Your task to perform on an android device: turn off data saver in the chrome app Image 0: 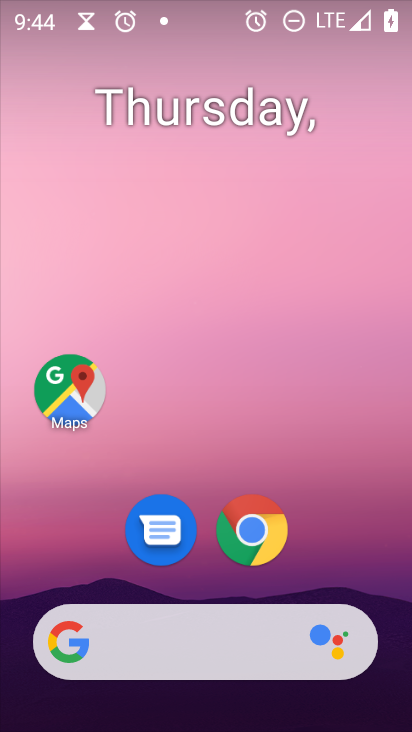
Step 0: drag from (340, 547) to (240, 5)
Your task to perform on an android device: turn off data saver in the chrome app Image 1: 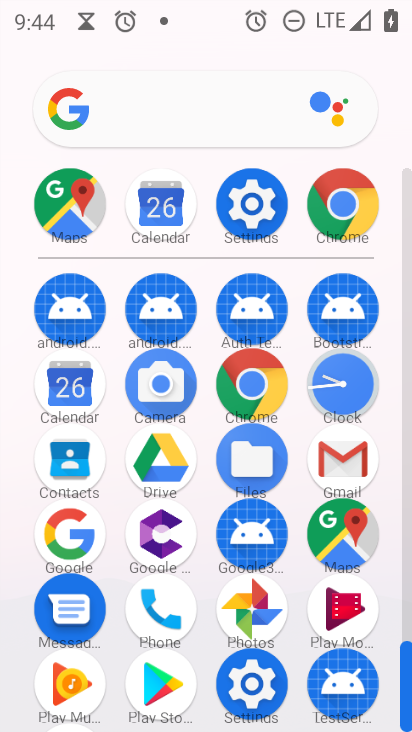
Step 1: drag from (10, 592) to (31, 230)
Your task to perform on an android device: turn off data saver in the chrome app Image 2: 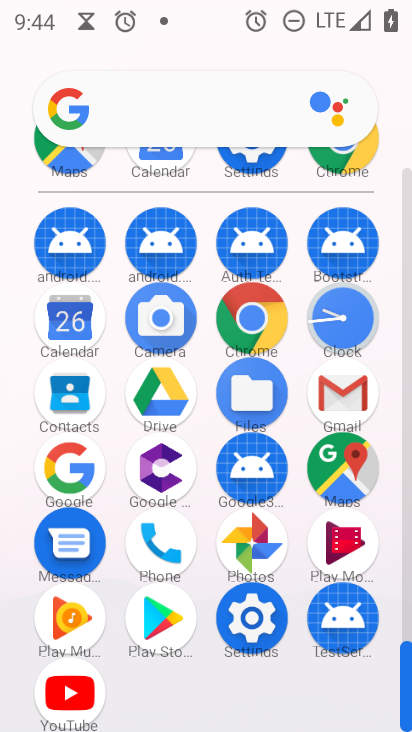
Step 2: click (252, 319)
Your task to perform on an android device: turn off data saver in the chrome app Image 3: 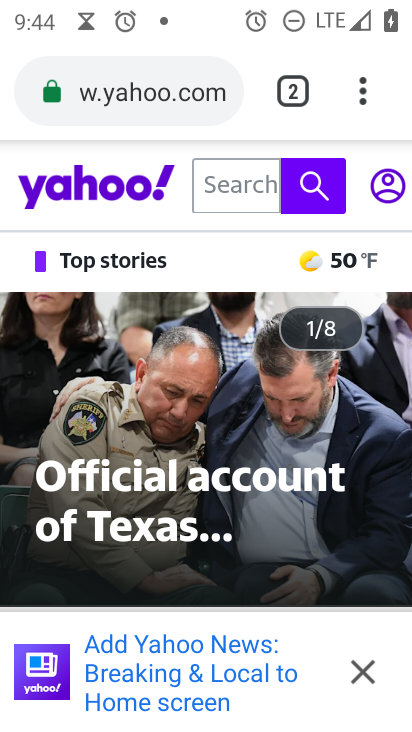
Step 3: drag from (363, 98) to (165, 563)
Your task to perform on an android device: turn off data saver in the chrome app Image 4: 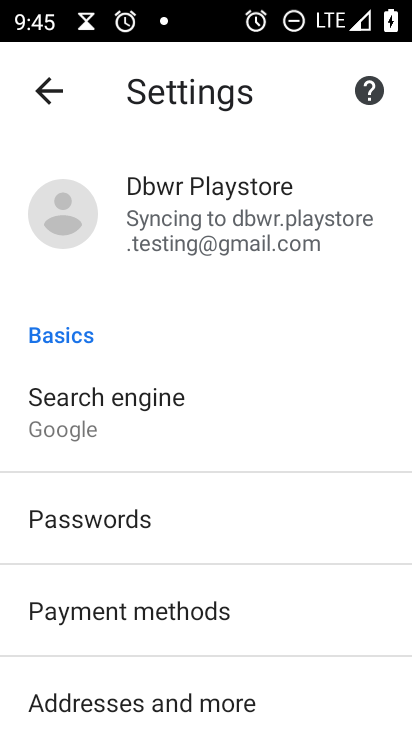
Step 4: drag from (255, 605) to (268, 256)
Your task to perform on an android device: turn off data saver in the chrome app Image 5: 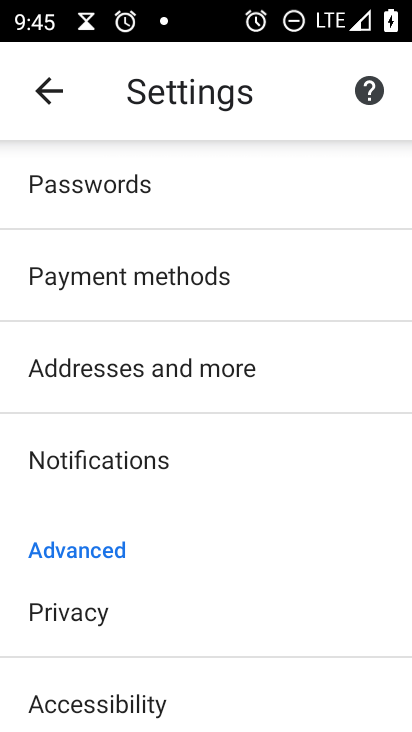
Step 5: drag from (271, 572) to (271, 214)
Your task to perform on an android device: turn off data saver in the chrome app Image 6: 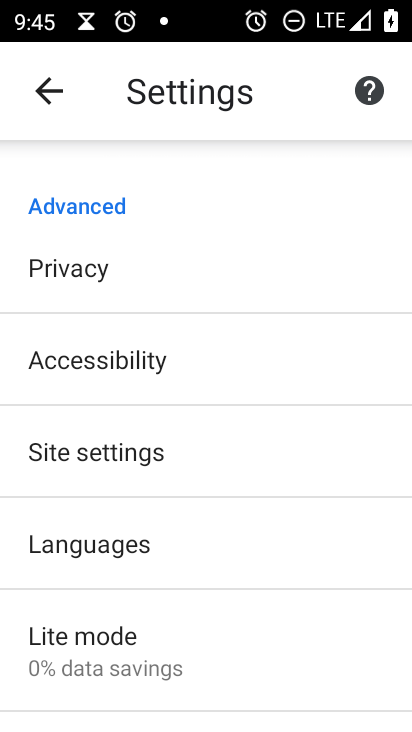
Step 6: click (178, 658)
Your task to perform on an android device: turn off data saver in the chrome app Image 7: 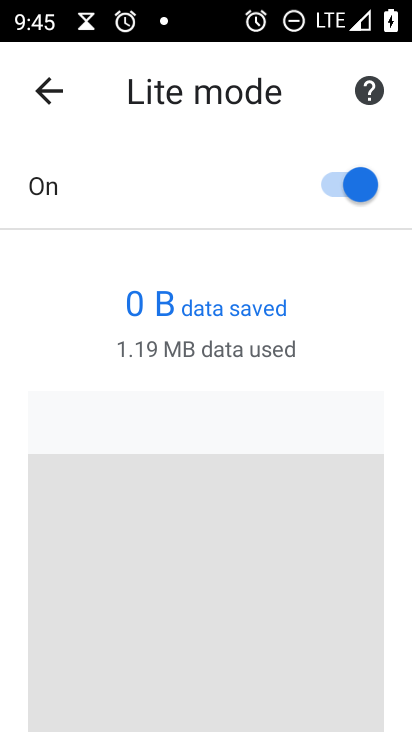
Step 7: click (349, 174)
Your task to perform on an android device: turn off data saver in the chrome app Image 8: 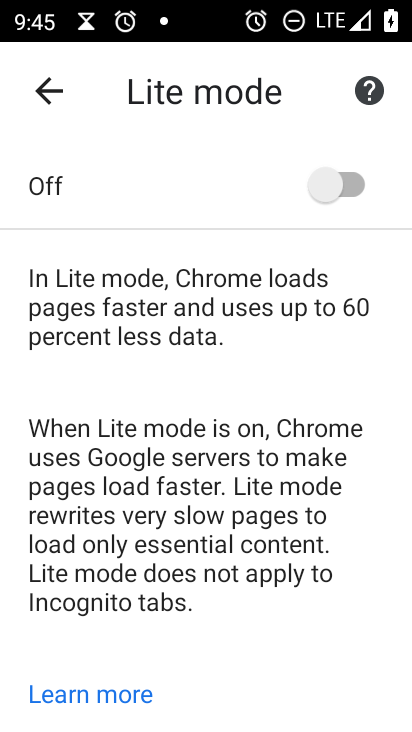
Step 8: task complete